Your task to perform on an android device: turn off wifi Image 0: 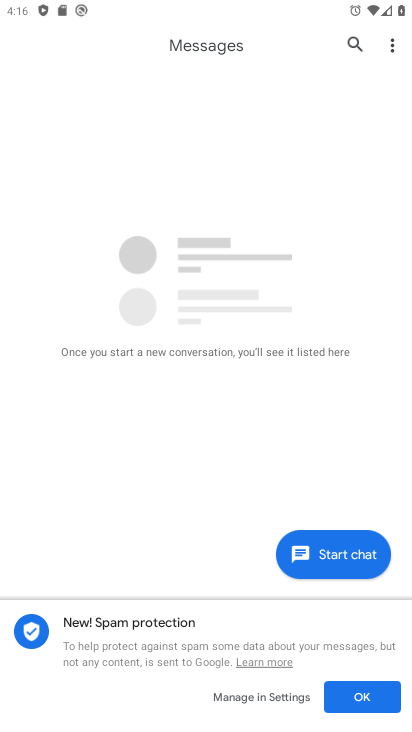
Step 0: press back button
Your task to perform on an android device: turn off wifi Image 1: 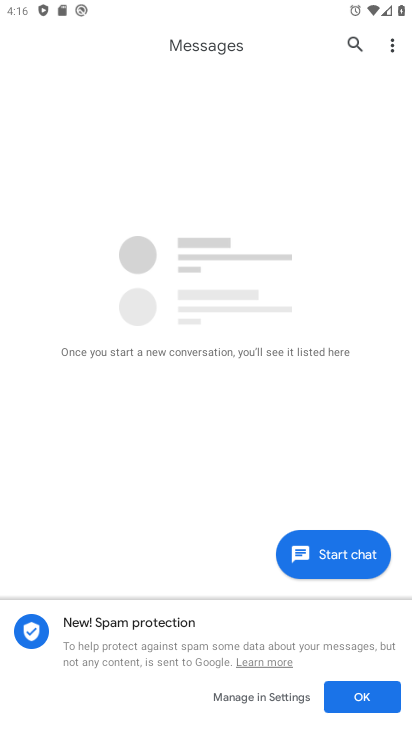
Step 1: press back button
Your task to perform on an android device: turn off wifi Image 2: 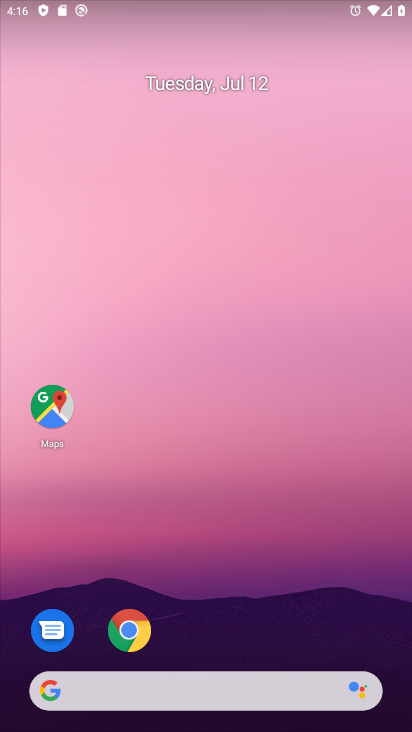
Step 2: drag from (187, 384) to (140, 130)
Your task to perform on an android device: turn off wifi Image 3: 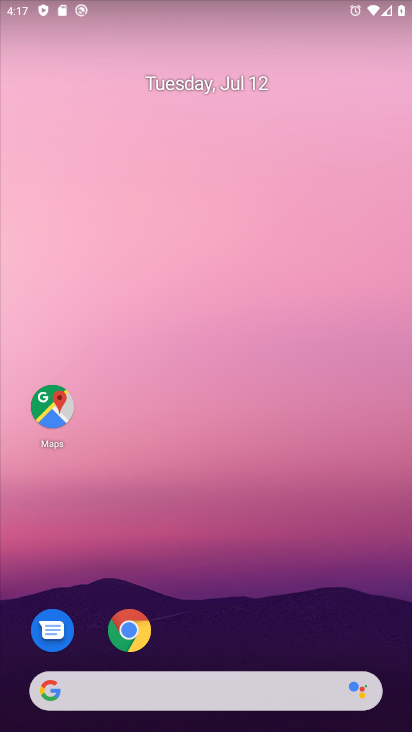
Step 3: drag from (225, 697) to (94, 4)
Your task to perform on an android device: turn off wifi Image 4: 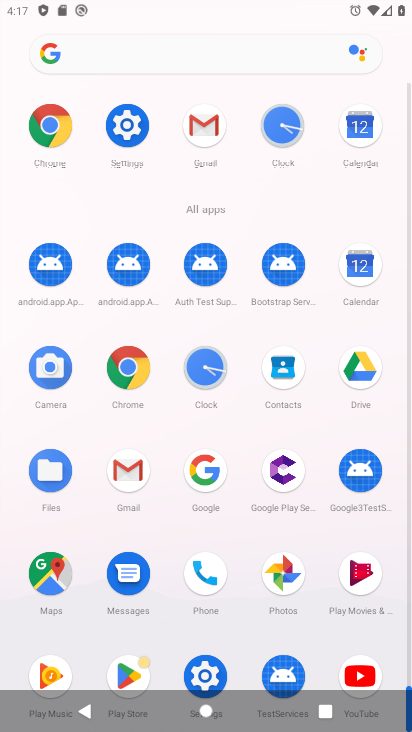
Step 4: click (116, 135)
Your task to perform on an android device: turn off wifi Image 5: 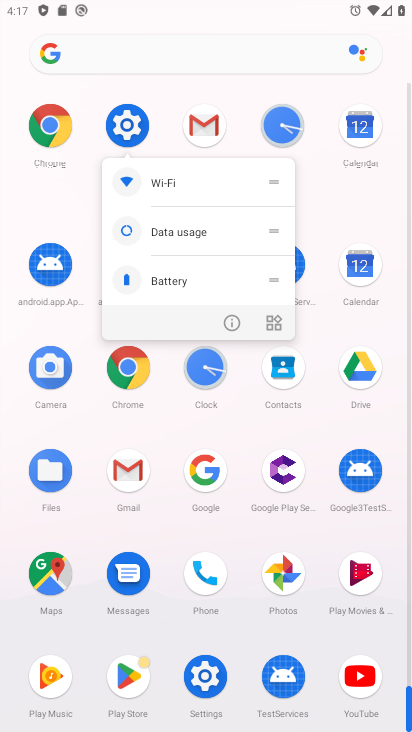
Step 5: click (131, 128)
Your task to perform on an android device: turn off wifi Image 6: 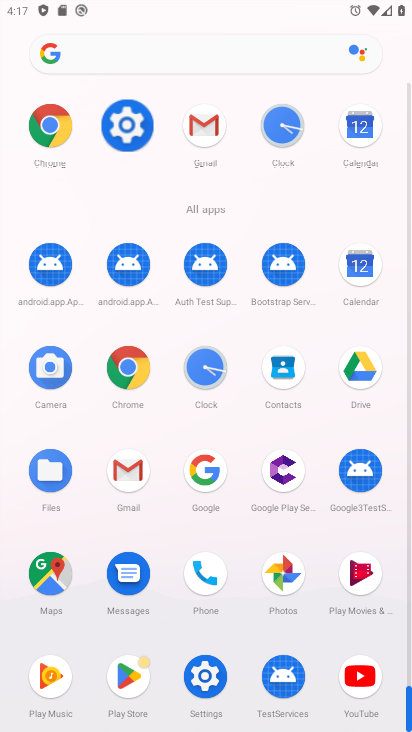
Step 6: click (136, 130)
Your task to perform on an android device: turn off wifi Image 7: 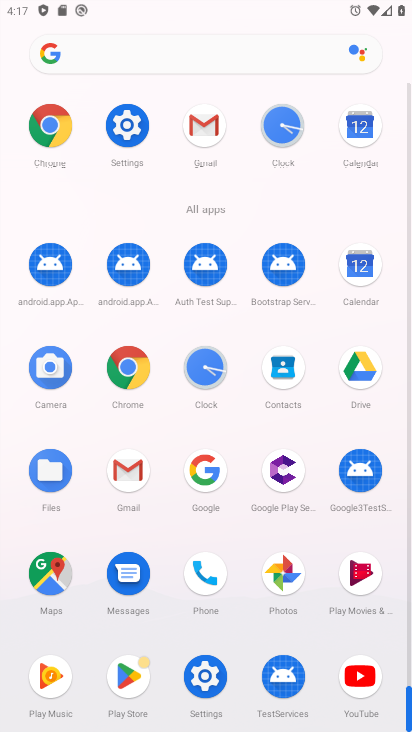
Step 7: click (136, 130)
Your task to perform on an android device: turn off wifi Image 8: 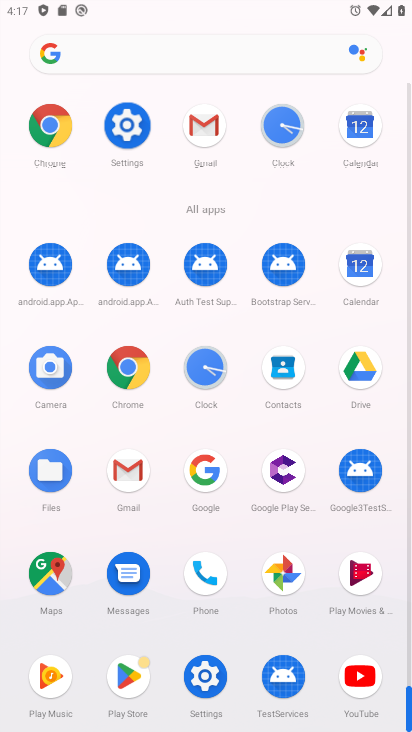
Step 8: click (136, 130)
Your task to perform on an android device: turn off wifi Image 9: 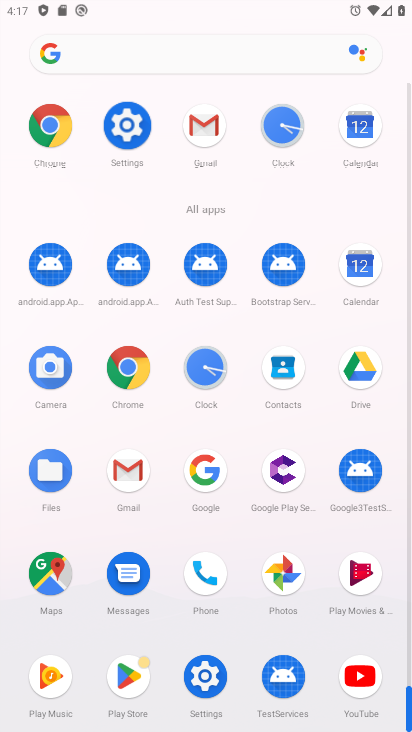
Step 9: click (136, 130)
Your task to perform on an android device: turn off wifi Image 10: 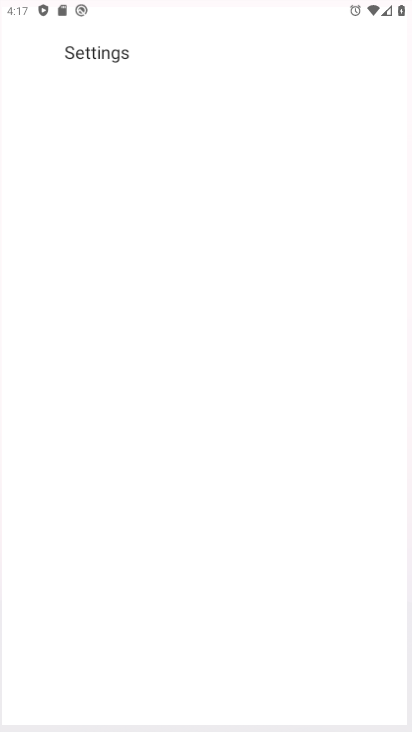
Step 10: click (138, 131)
Your task to perform on an android device: turn off wifi Image 11: 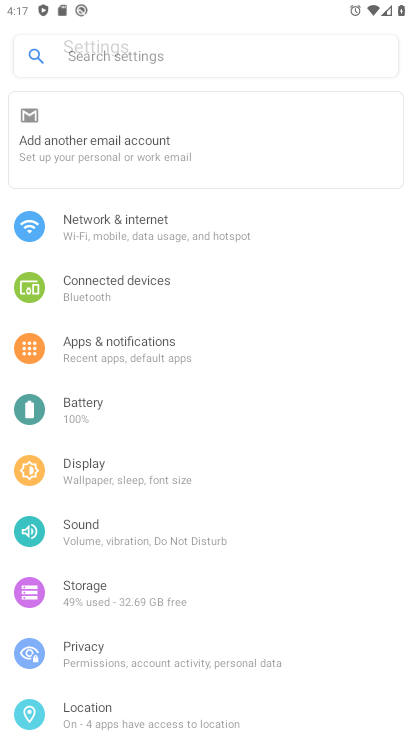
Step 11: click (138, 131)
Your task to perform on an android device: turn off wifi Image 12: 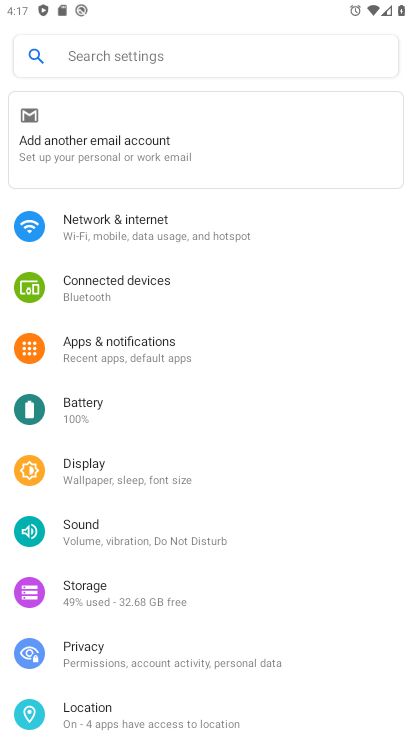
Step 12: click (97, 202)
Your task to perform on an android device: turn off wifi Image 13: 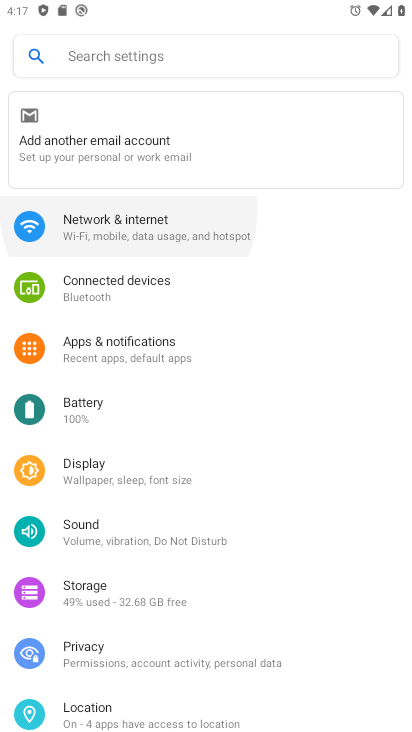
Step 13: click (104, 219)
Your task to perform on an android device: turn off wifi Image 14: 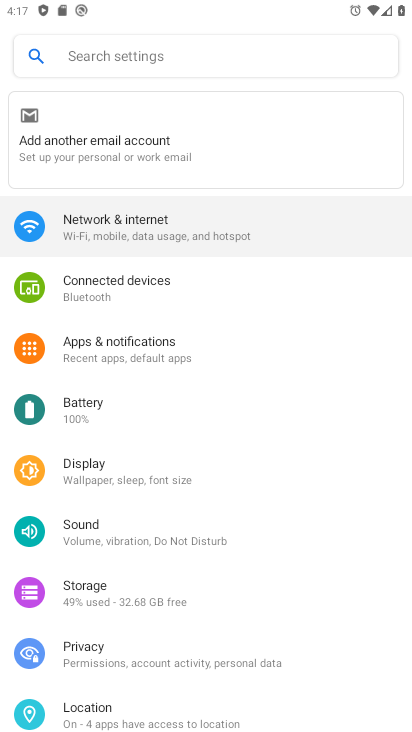
Step 14: click (111, 223)
Your task to perform on an android device: turn off wifi Image 15: 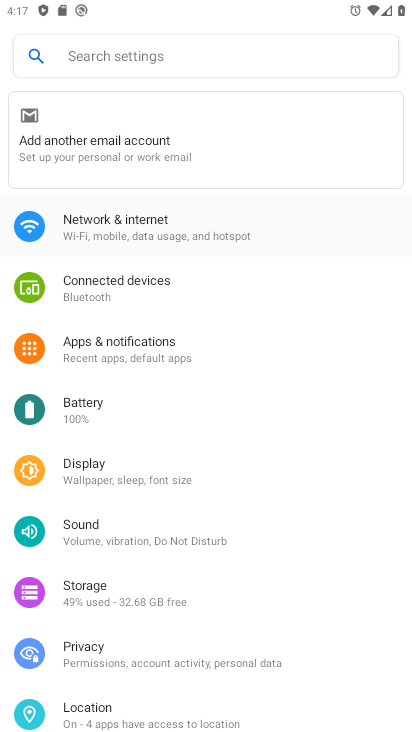
Step 15: click (117, 224)
Your task to perform on an android device: turn off wifi Image 16: 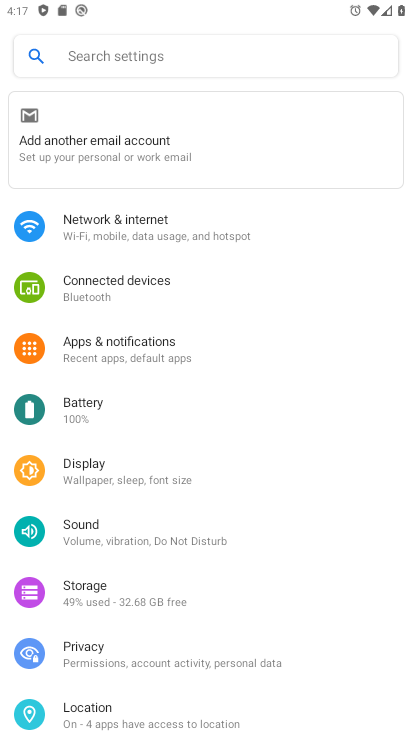
Step 16: click (117, 224)
Your task to perform on an android device: turn off wifi Image 17: 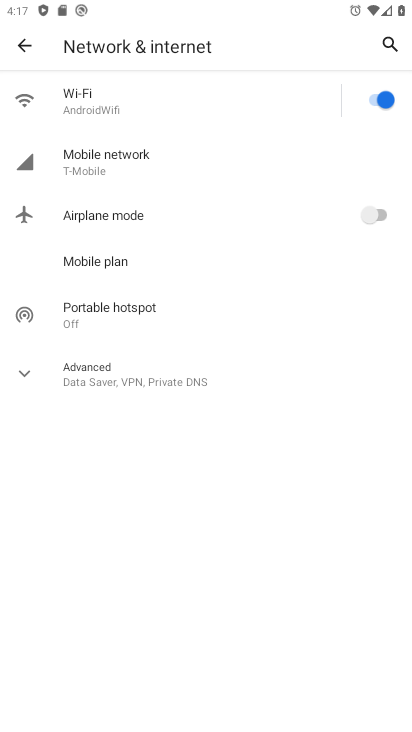
Step 17: click (382, 102)
Your task to perform on an android device: turn off wifi Image 18: 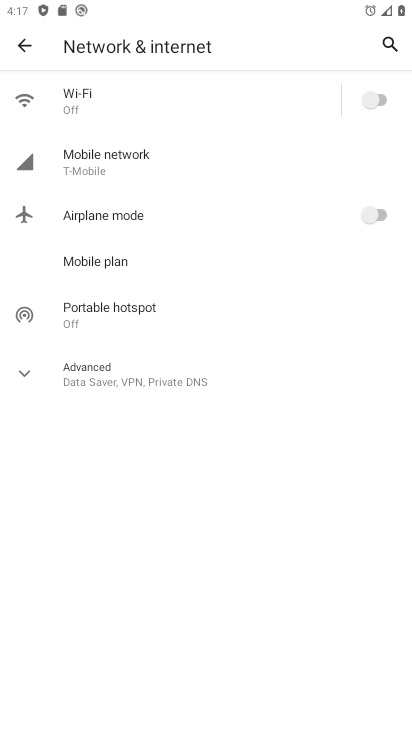
Step 18: task complete